Your task to perform on an android device: Open wifi settings Image 0: 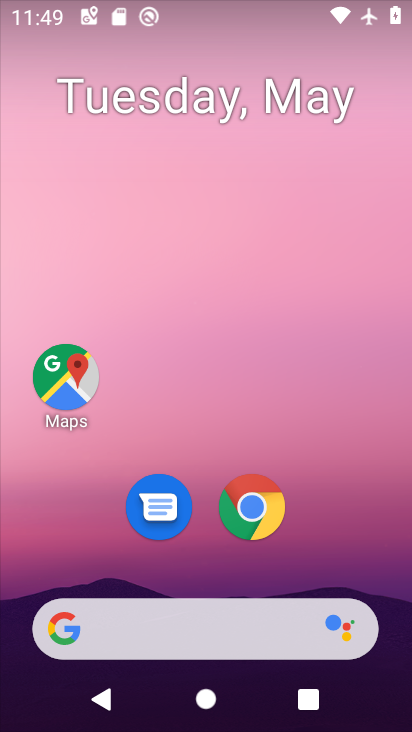
Step 0: drag from (253, 720) to (189, 139)
Your task to perform on an android device: Open wifi settings Image 1: 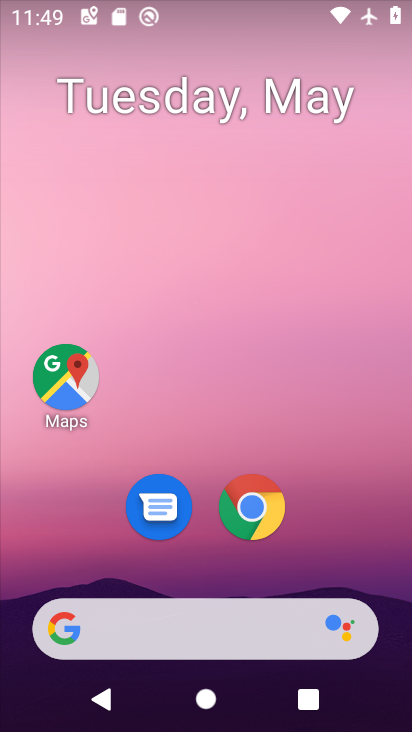
Step 1: drag from (233, 620) to (175, 182)
Your task to perform on an android device: Open wifi settings Image 2: 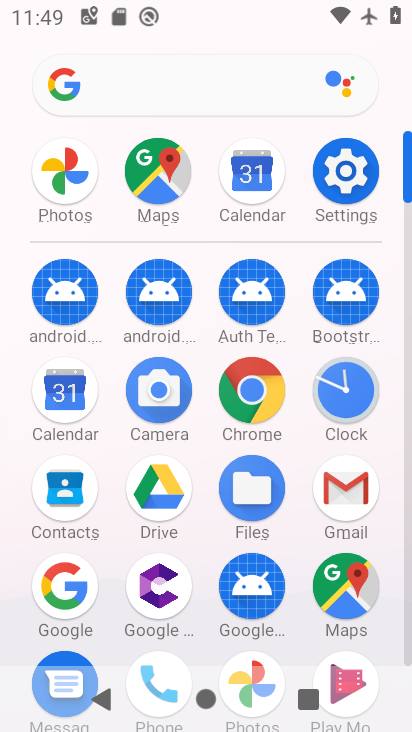
Step 2: click (336, 182)
Your task to perform on an android device: Open wifi settings Image 3: 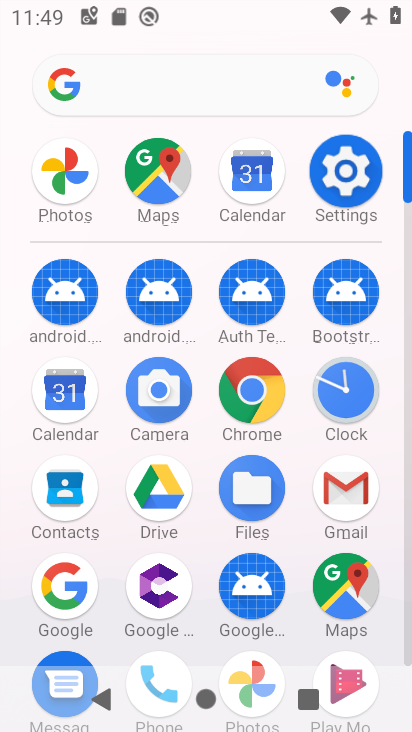
Step 3: click (336, 182)
Your task to perform on an android device: Open wifi settings Image 4: 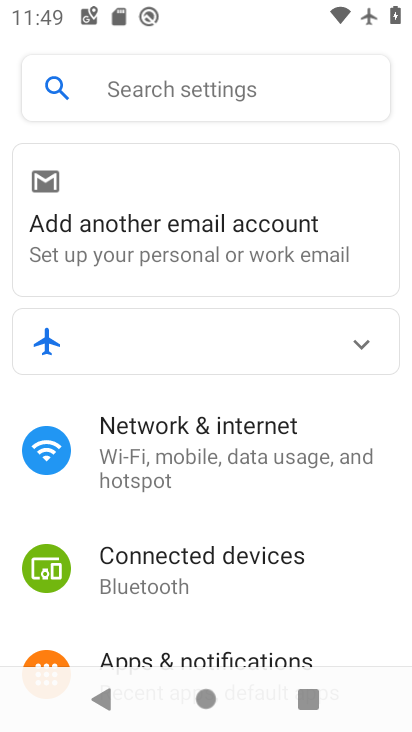
Step 4: drag from (247, 498) to (219, 207)
Your task to perform on an android device: Open wifi settings Image 5: 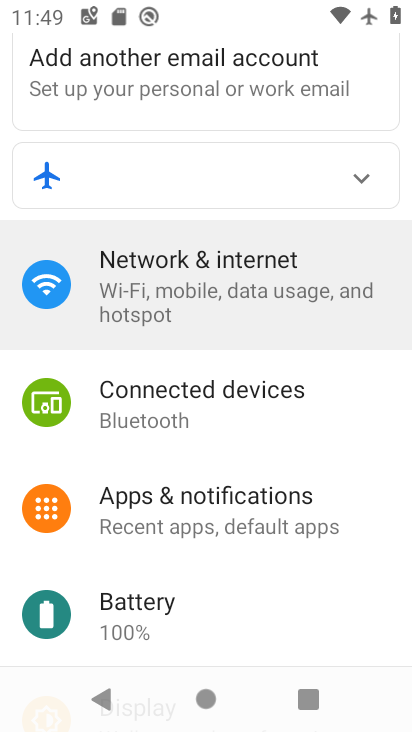
Step 5: drag from (285, 462) to (241, 59)
Your task to perform on an android device: Open wifi settings Image 6: 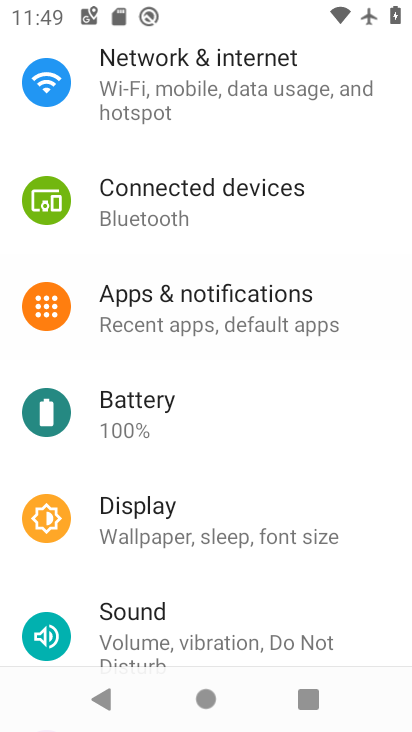
Step 6: drag from (244, 313) to (237, 20)
Your task to perform on an android device: Open wifi settings Image 7: 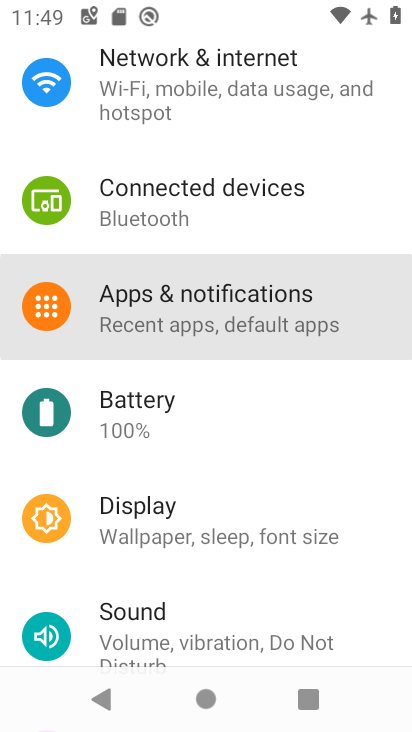
Step 7: drag from (224, 414) to (218, 141)
Your task to perform on an android device: Open wifi settings Image 8: 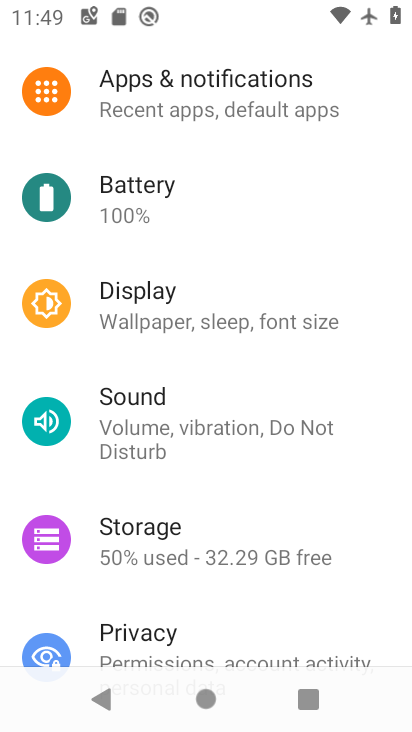
Step 8: drag from (131, 167) to (177, 428)
Your task to perform on an android device: Open wifi settings Image 9: 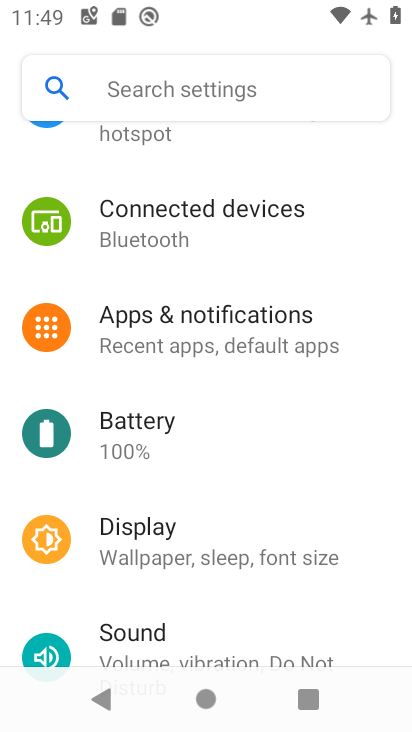
Step 9: drag from (213, 259) to (269, 452)
Your task to perform on an android device: Open wifi settings Image 10: 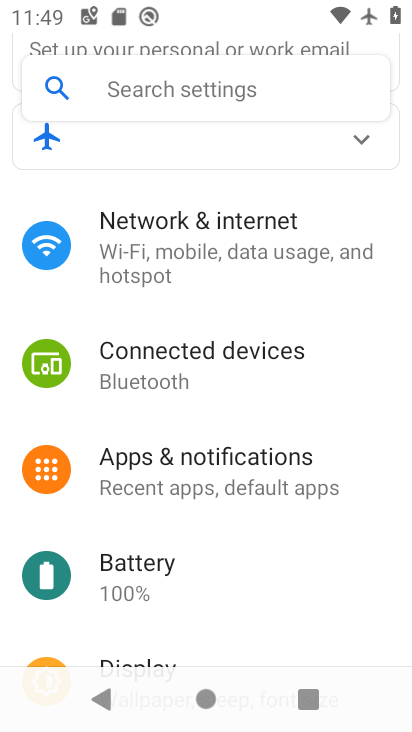
Step 10: drag from (256, 177) to (292, 453)
Your task to perform on an android device: Open wifi settings Image 11: 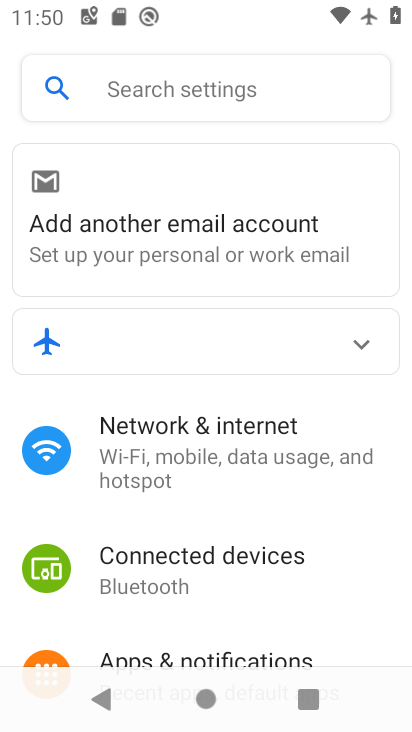
Step 11: click (186, 248)
Your task to perform on an android device: Open wifi settings Image 12: 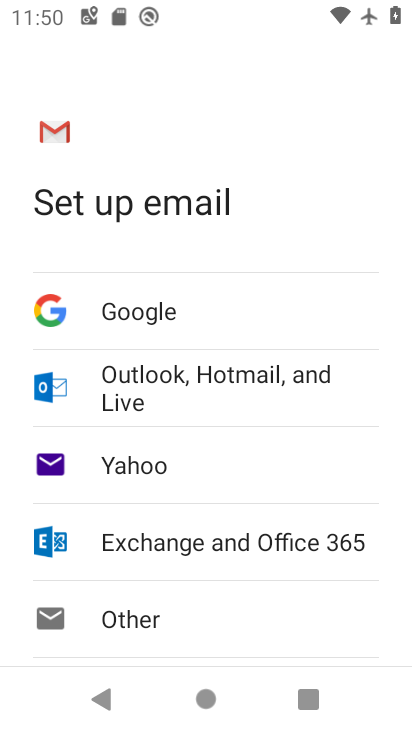
Step 12: press back button
Your task to perform on an android device: Open wifi settings Image 13: 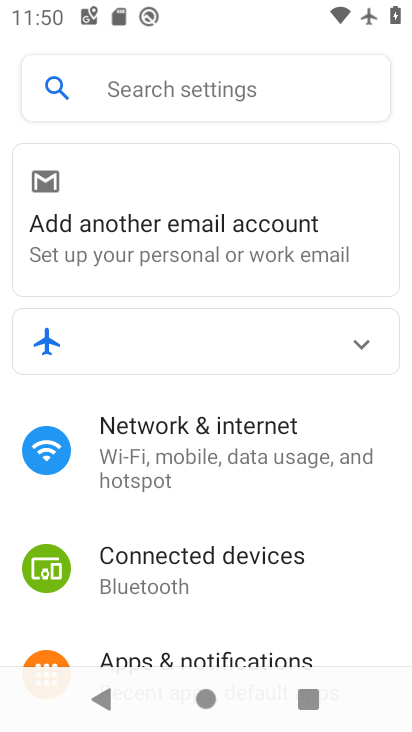
Step 13: click (204, 445)
Your task to perform on an android device: Open wifi settings Image 14: 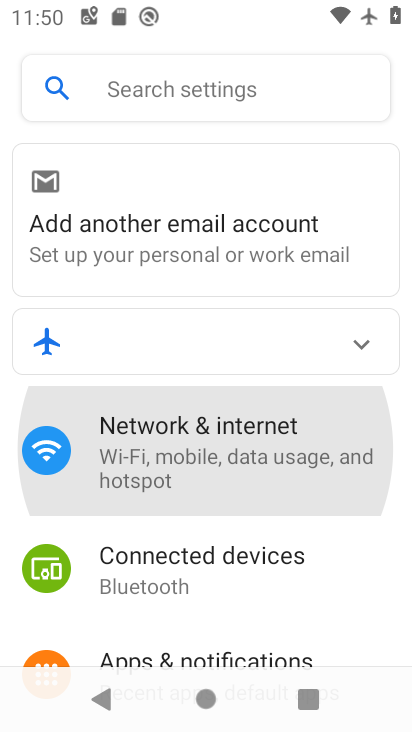
Step 14: click (204, 444)
Your task to perform on an android device: Open wifi settings Image 15: 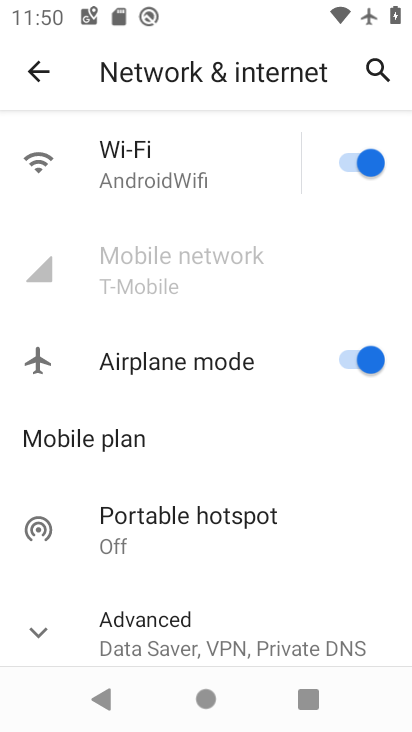
Step 15: task complete